Your task to perform on an android device: set an alarm Image 0: 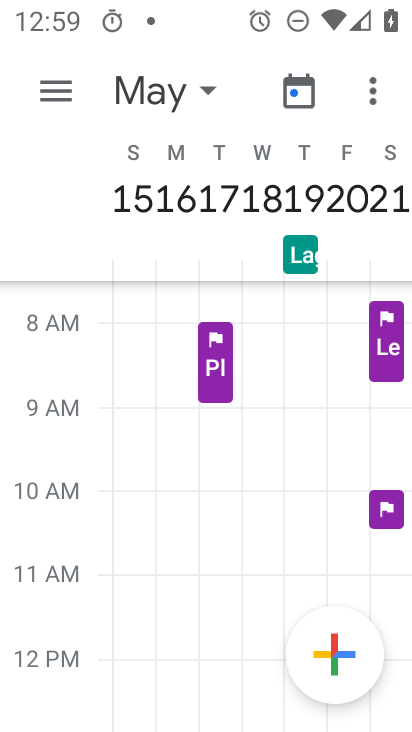
Step 0: press home button
Your task to perform on an android device: set an alarm Image 1: 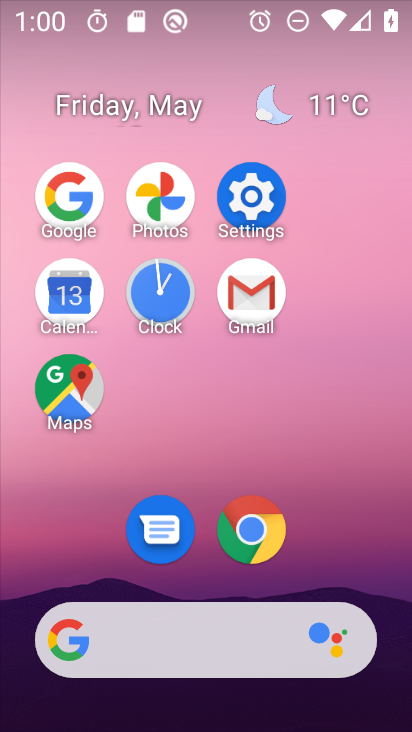
Step 1: click (151, 304)
Your task to perform on an android device: set an alarm Image 2: 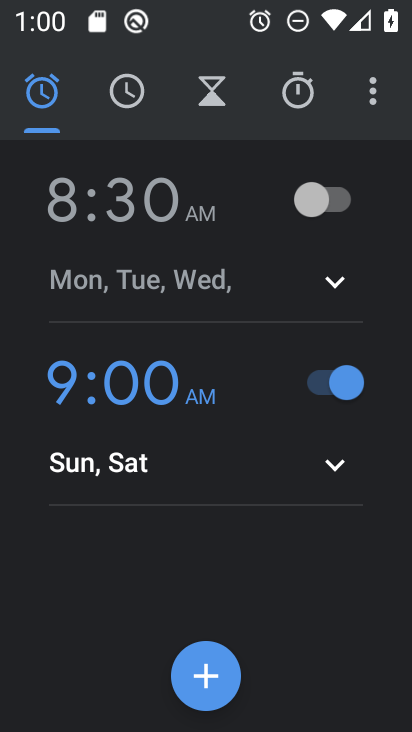
Step 2: click (330, 201)
Your task to perform on an android device: set an alarm Image 3: 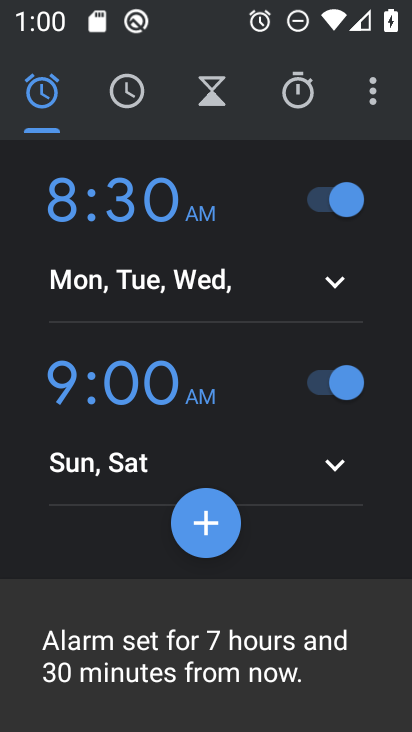
Step 3: task complete